Your task to perform on an android device: When is my next appointment? Image 0: 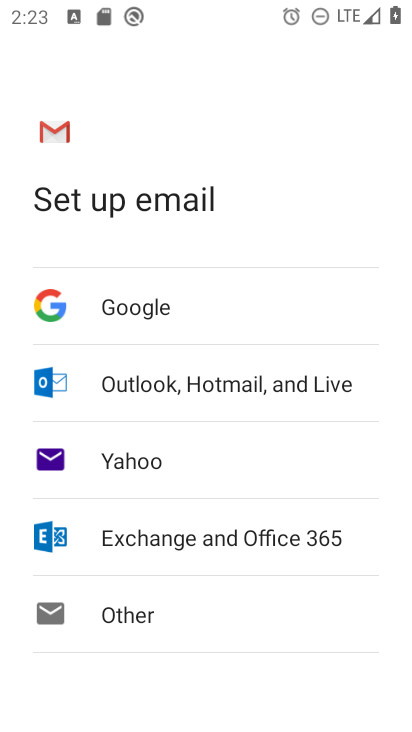
Step 0: press home button
Your task to perform on an android device: When is my next appointment? Image 1: 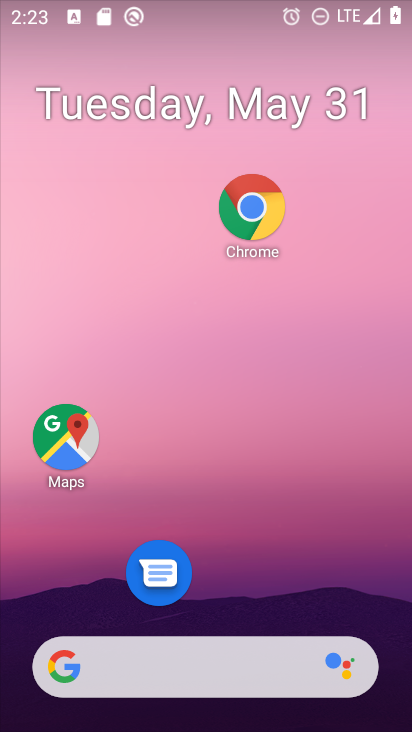
Step 1: drag from (174, 659) to (240, 174)
Your task to perform on an android device: When is my next appointment? Image 2: 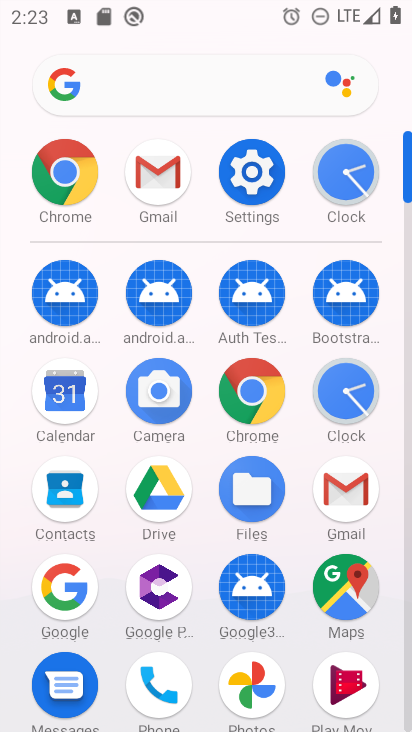
Step 2: click (54, 409)
Your task to perform on an android device: When is my next appointment? Image 3: 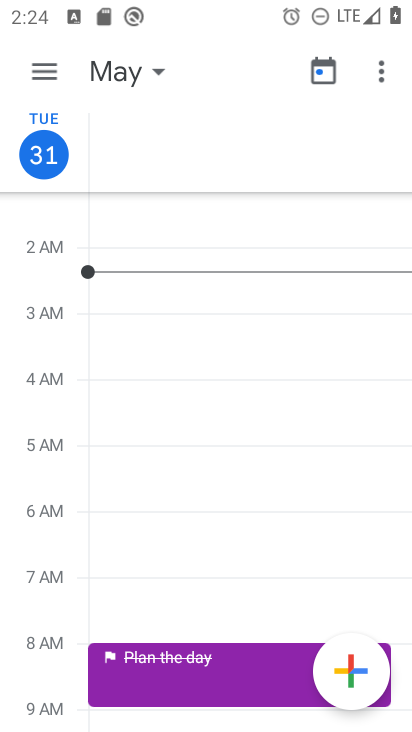
Step 3: task complete